Your task to perform on an android device: delete a single message in the gmail app Image 0: 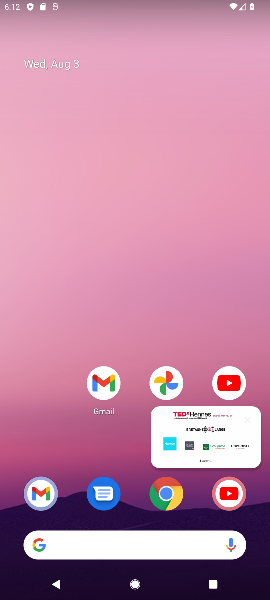
Step 0: drag from (227, 441) to (57, 440)
Your task to perform on an android device: delete a single message in the gmail app Image 1: 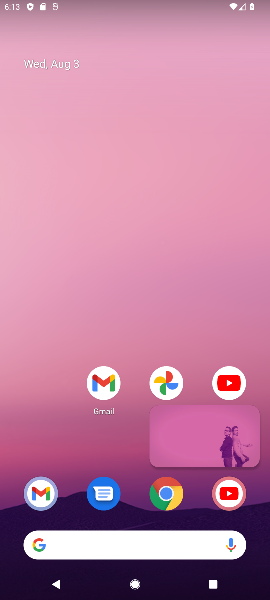
Step 1: click (250, 417)
Your task to perform on an android device: delete a single message in the gmail app Image 2: 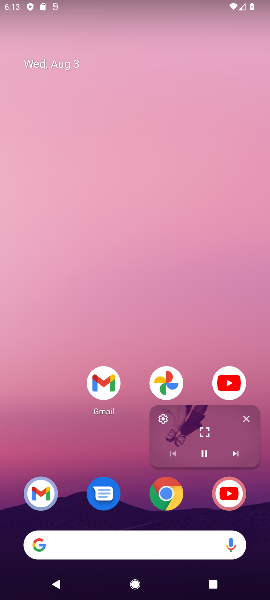
Step 2: click (250, 415)
Your task to perform on an android device: delete a single message in the gmail app Image 3: 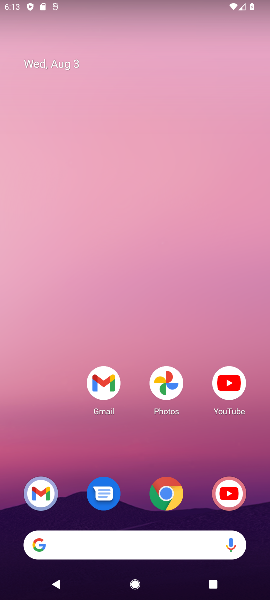
Step 3: click (245, 419)
Your task to perform on an android device: delete a single message in the gmail app Image 4: 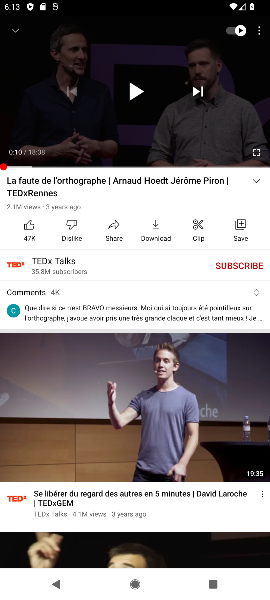
Step 4: press home button
Your task to perform on an android device: delete a single message in the gmail app Image 5: 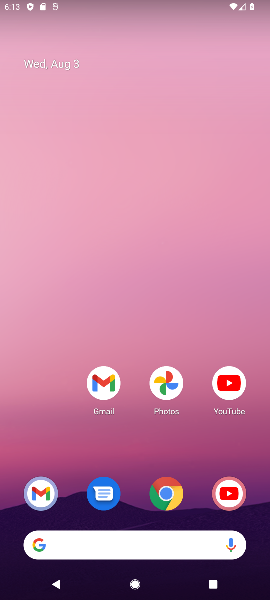
Step 5: click (100, 378)
Your task to perform on an android device: delete a single message in the gmail app Image 6: 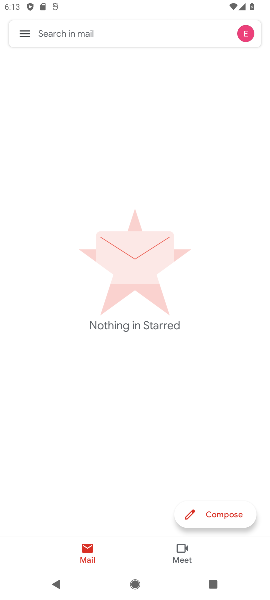
Step 6: click (25, 36)
Your task to perform on an android device: delete a single message in the gmail app Image 7: 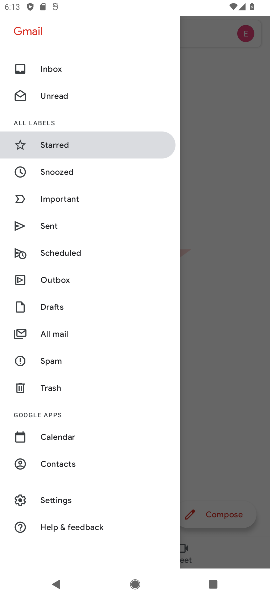
Step 7: click (51, 69)
Your task to perform on an android device: delete a single message in the gmail app Image 8: 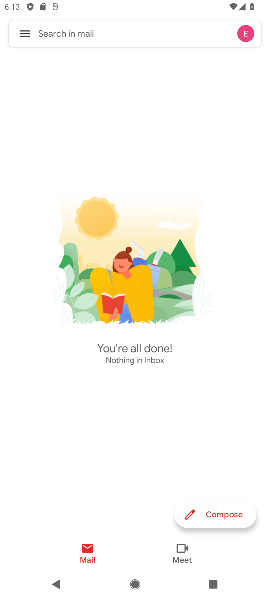
Step 8: task complete